Your task to perform on an android device: Go to Wikipedia Image 0: 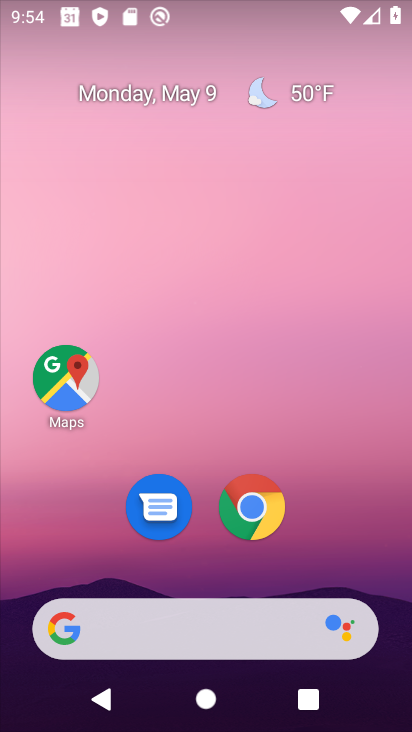
Step 0: click (272, 508)
Your task to perform on an android device: Go to Wikipedia Image 1: 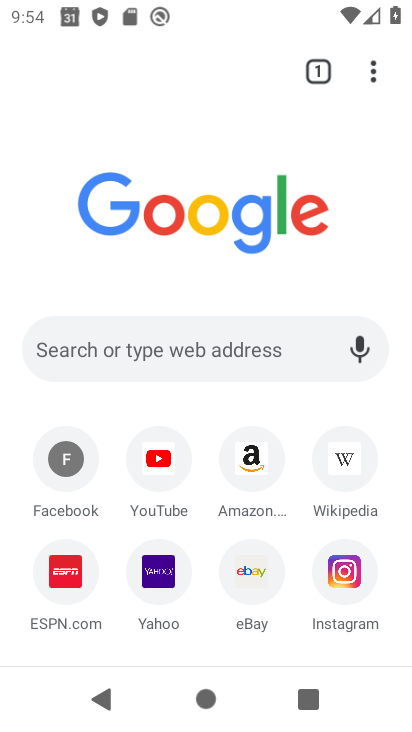
Step 1: click (346, 446)
Your task to perform on an android device: Go to Wikipedia Image 2: 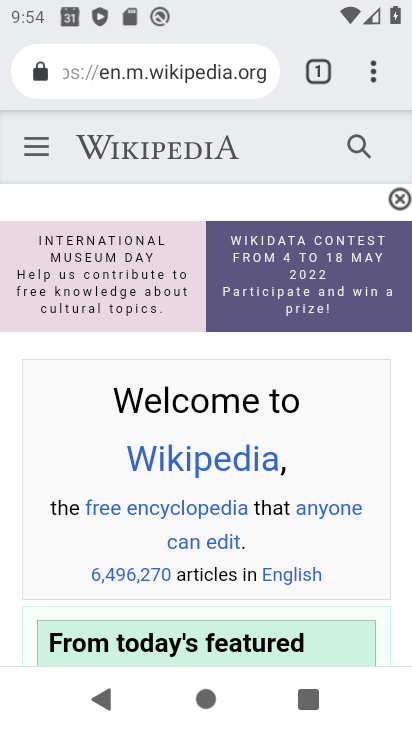
Step 2: task complete